Your task to perform on an android device: Open notification settings Image 0: 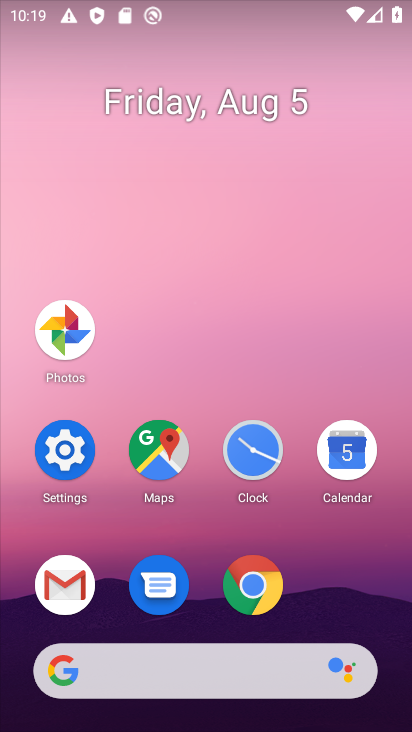
Step 0: click (69, 447)
Your task to perform on an android device: Open notification settings Image 1: 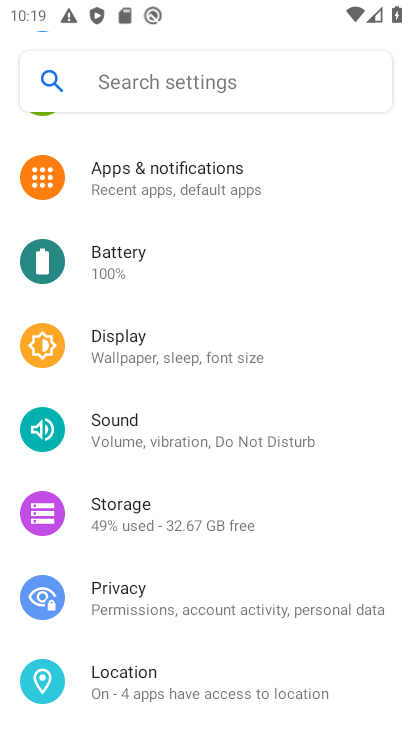
Step 1: click (163, 163)
Your task to perform on an android device: Open notification settings Image 2: 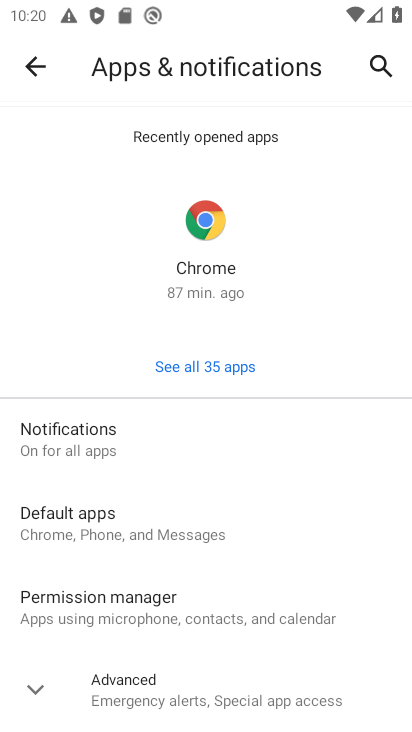
Step 2: task complete